Your task to perform on an android device: Open Chrome and go to settings Image 0: 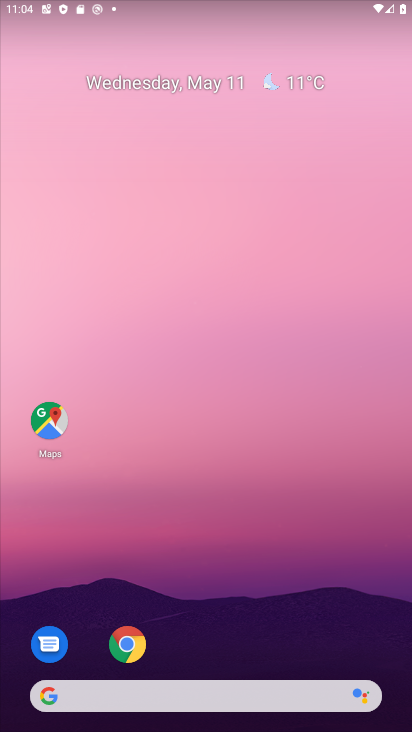
Step 0: drag from (208, 656) to (234, 42)
Your task to perform on an android device: Open Chrome and go to settings Image 1: 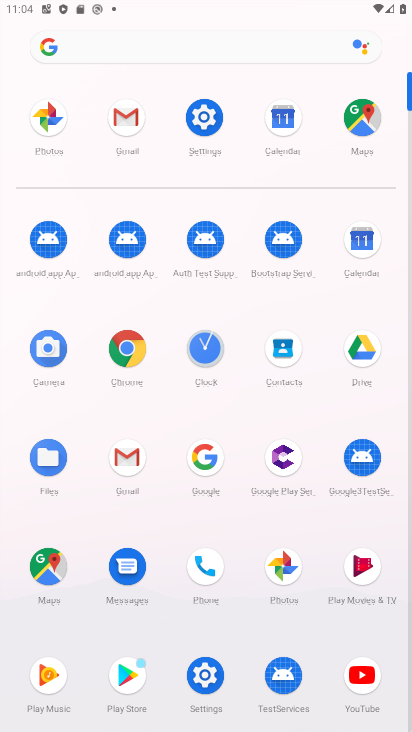
Step 1: click (206, 116)
Your task to perform on an android device: Open Chrome and go to settings Image 2: 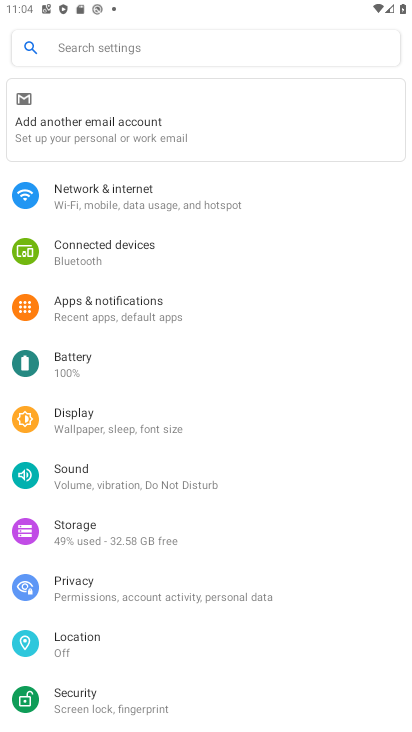
Step 2: click (87, 362)
Your task to perform on an android device: Open Chrome and go to settings Image 3: 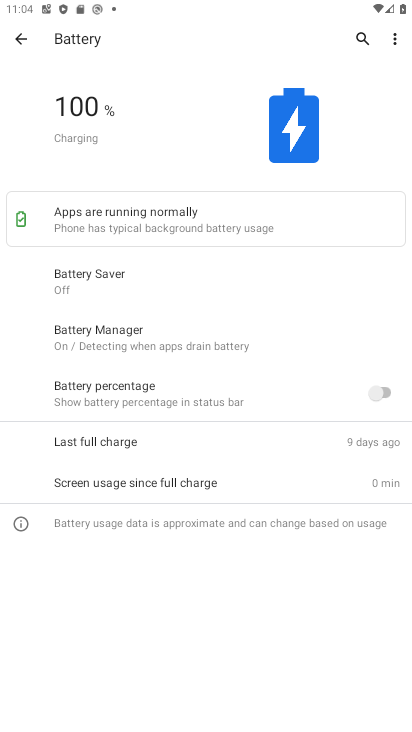
Step 3: press home button
Your task to perform on an android device: Open Chrome and go to settings Image 4: 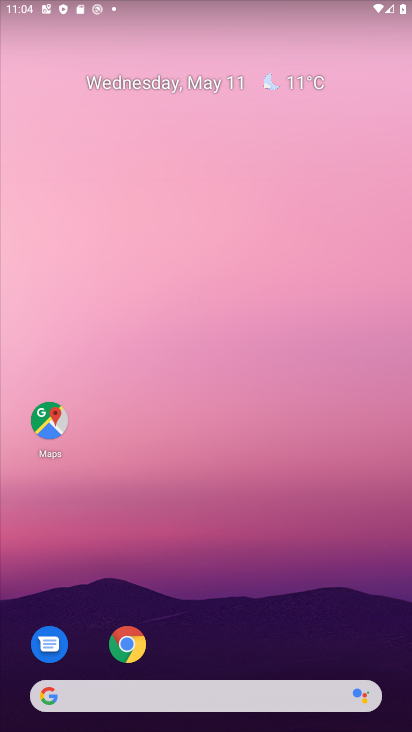
Step 4: drag from (195, 624) to (195, 21)
Your task to perform on an android device: Open Chrome and go to settings Image 5: 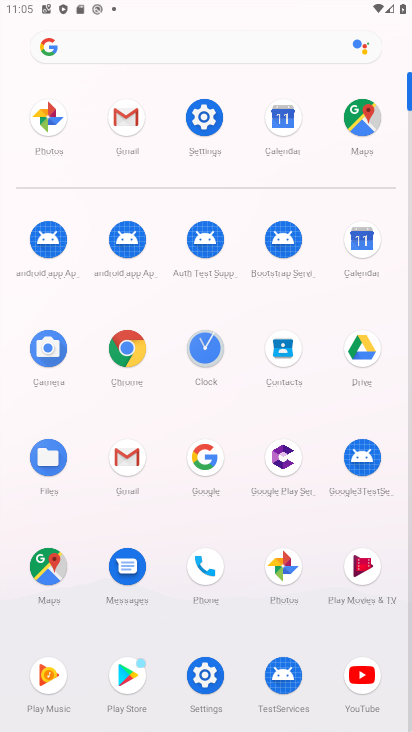
Step 5: click (124, 346)
Your task to perform on an android device: Open Chrome and go to settings Image 6: 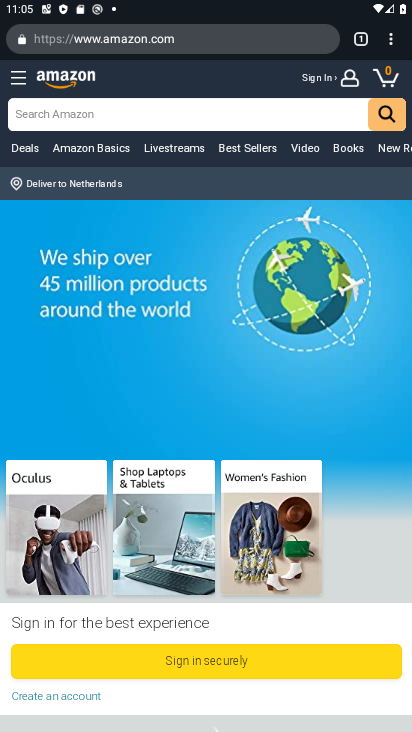
Step 6: click (388, 36)
Your task to perform on an android device: Open Chrome and go to settings Image 7: 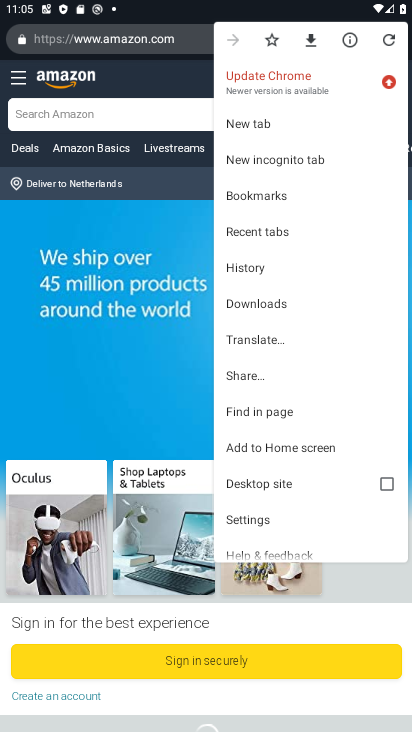
Step 7: click (277, 515)
Your task to perform on an android device: Open Chrome and go to settings Image 8: 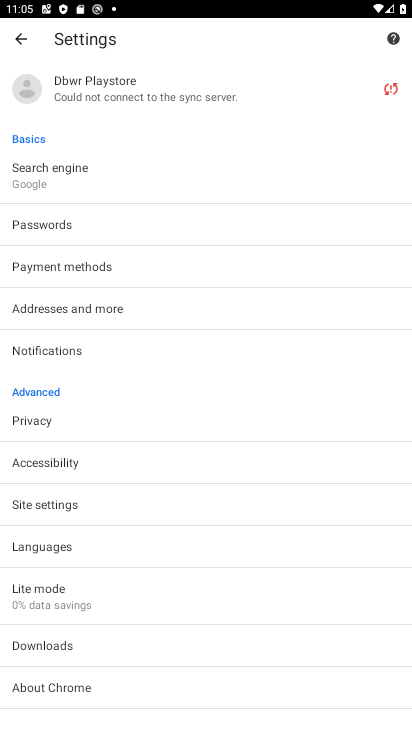
Step 8: task complete